Your task to perform on an android device: Search for energizer triple a on newegg, select the first entry, add it to the cart, then select checkout. Image 0: 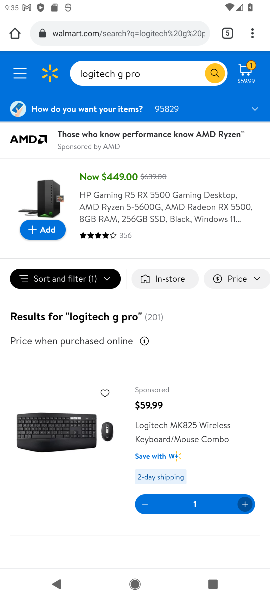
Step 0: press home button
Your task to perform on an android device: Search for energizer triple a on newegg, select the first entry, add it to the cart, then select checkout. Image 1: 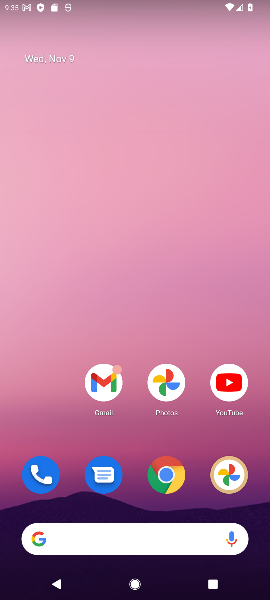
Step 1: click (164, 480)
Your task to perform on an android device: Search for energizer triple a on newegg, select the first entry, add it to the cart, then select checkout. Image 2: 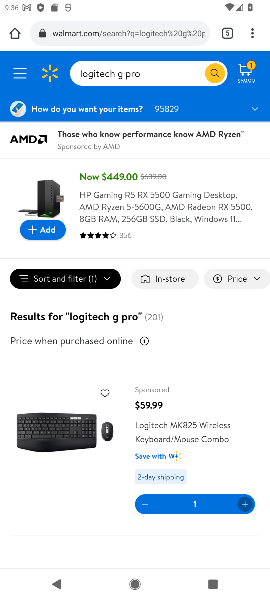
Step 2: click (230, 31)
Your task to perform on an android device: Search for energizer triple a on newegg, select the first entry, add it to the cart, then select checkout. Image 3: 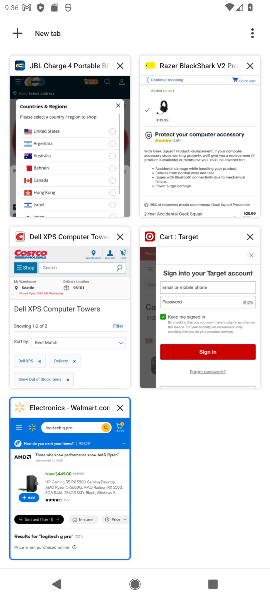
Step 3: click (79, 148)
Your task to perform on an android device: Search for energizer triple a on newegg, select the first entry, add it to the cart, then select checkout. Image 4: 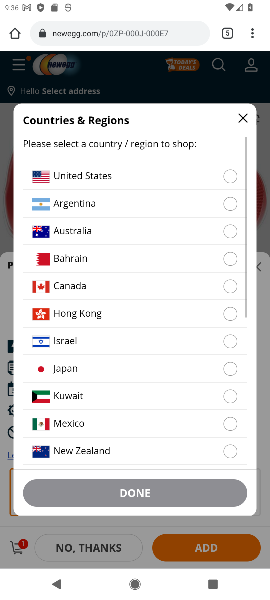
Step 4: click (228, 173)
Your task to perform on an android device: Search for energizer triple a on newegg, select the first entry, add it to the cart, then select checkout. Image 5: 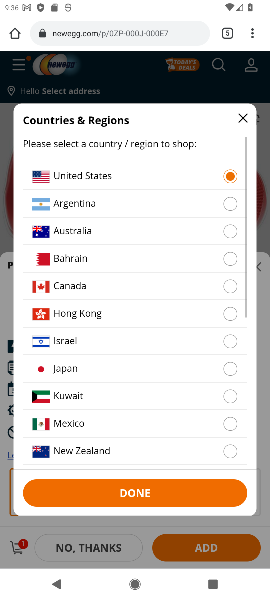
Step 5: click (135, 496)
Your task to perform on an android device: Search for energizer triple a on newegg, select the first entry, add it to the cart, then select checkout. Image 6: 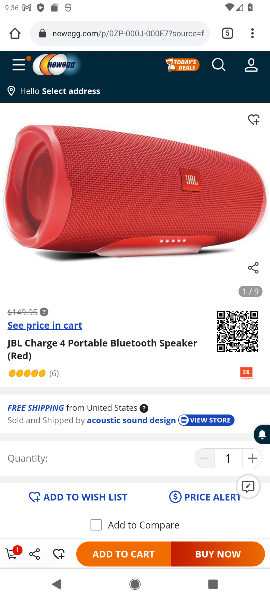
Step 6: click (217, 63)
Your task to perform on an android device: Search for energizer triple a on newegg, select the first entry, add it to the cart, then select checkout. Image 7: 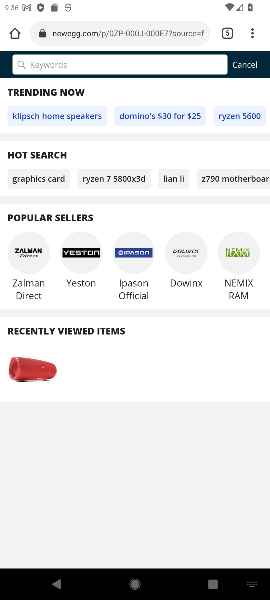
Step 7: type "energizer triple a battery"
Your task to perform on an android device: Search for energizer triple a on newegg, select the first entry, add it to the cart, then select checkout. Image 8: 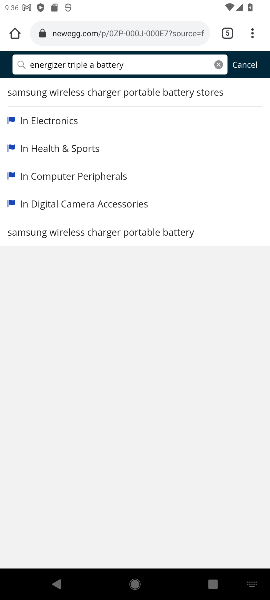
Step 8: click (19, 67)
Your task to perform on an android device: Search for energizer triple a on newegg, select the first entry, add it to the cart, then select checkout. Image 9: 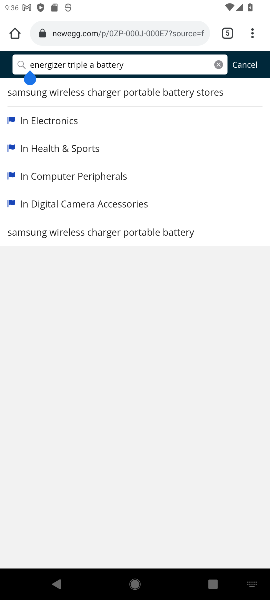
Step 9: click (139, 62)
Your task to perform on an android device: Search for energizer triple a on newegg, select the first entry, add it to the cart, then select checkout. Image 10: 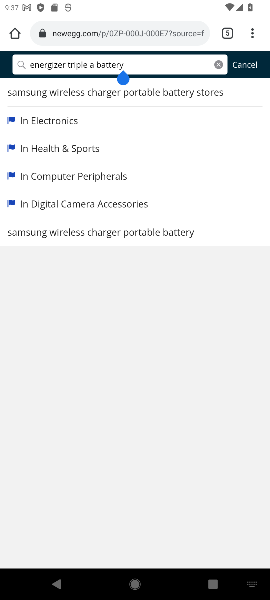
Step 10: click (54, 122)
Your task to perform on an android device: Search for energizer triple a on newegg, select the first entry, add it to the cart, then select checkout. Image 11: 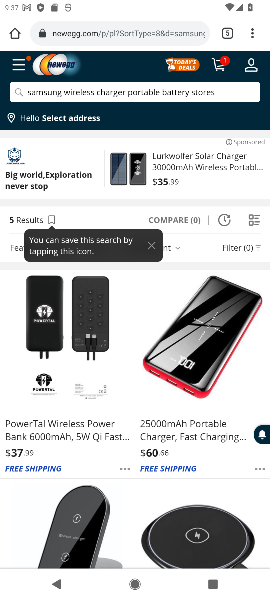
Step 11: click (146, 94)
Your task to perform on an android device: Search for energizer triple a on newegg, select the first entry, add it to the cart, then select checkout. Image 12: 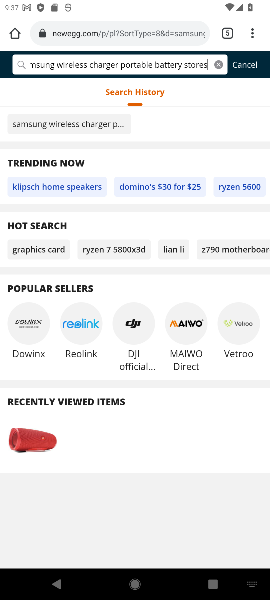
Step 12: click (216, 63)
Your task to perform on an android device: Search for energizer triple a on newegg, select the first entry, add it to the cart, then select checkout. Image 13: 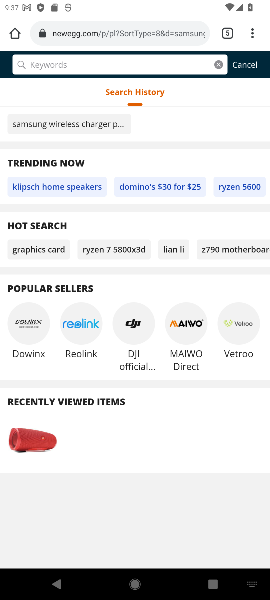
Step 13: type "energizer triple a"
Your task to perform on an android device: Search for energizer triple a on newegg, select the first entry, add it to the cart, then select checkout. Image 14: 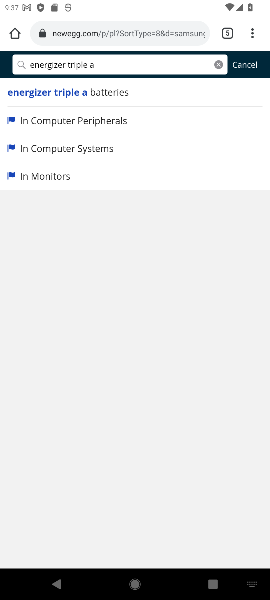
Step 14: click (106, 87)
Your task to perform on an android device: Search for energizer triple a on newegg, select the first entry, add it to the cart, then select checkout. Image 15: 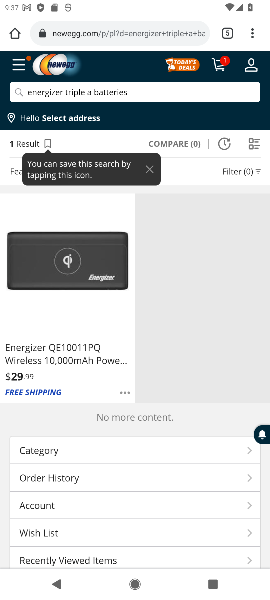
Step 15: click (44, 356)
Your task to perform on an android device: Search for energizer triple a on newegg, select the first entry, add it to the cart, then select checkout. Image 16: 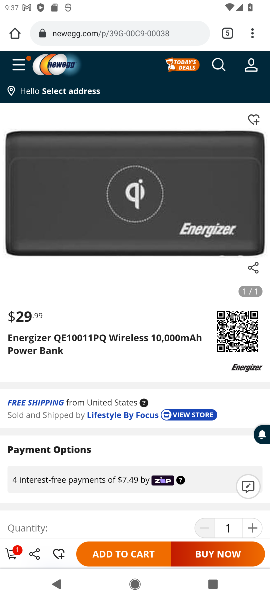
Step 16: click (115, 557)
Your task to perform on an android device: Search for energizer triple a on newegg, select the first entry, add it to the cart, then select checkout. Image 17: 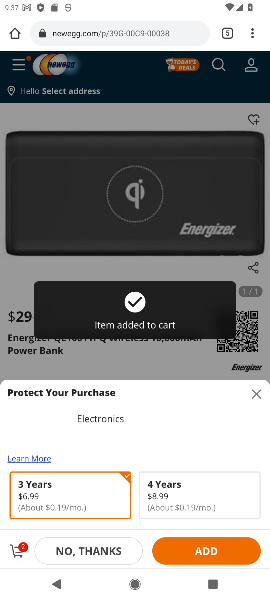
Step 17: click (7, 554)
Your task to perform on an android device: Search for energizer triple a on newegg, select the first entry, add it to the cart, then select checkout. Image 18: 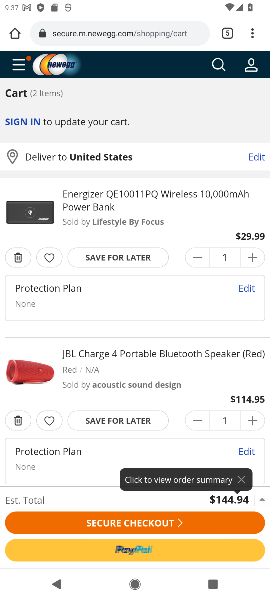
Step 18: click (123, 530)
Your task to perform on an android device: Search for energizer triple a on newegg, select the first entry, add it to the cart, then select checkout. Image 19: 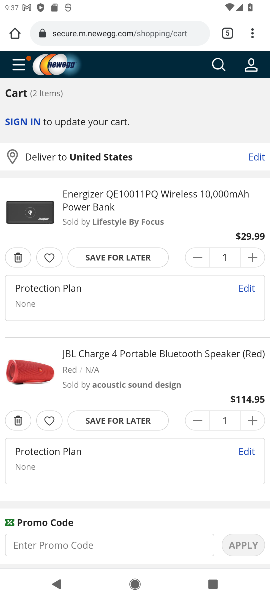
Step 19: click (123, 530)
Your task to perform on an android device: Search for energizer triple a on newegg, select the first entry, add it to the cart, then select checkout. Image 20: 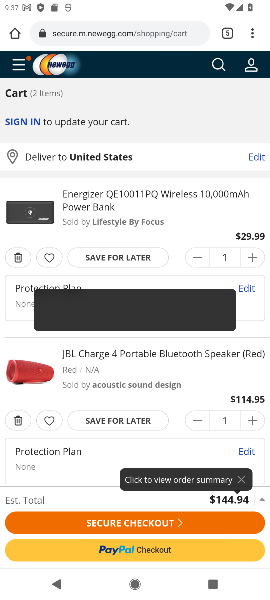
Step 20: click (123, 530)
Your task to perform on an android device: Search for energizer triple a on newegg, select the first entry, add it to the cart, then select checkout. Image 21: 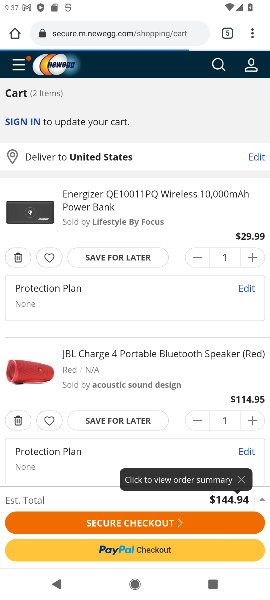
Step 21: task complete